Your task to perform on an android device: install app "Flipkart Online Shopping App" Image 0: 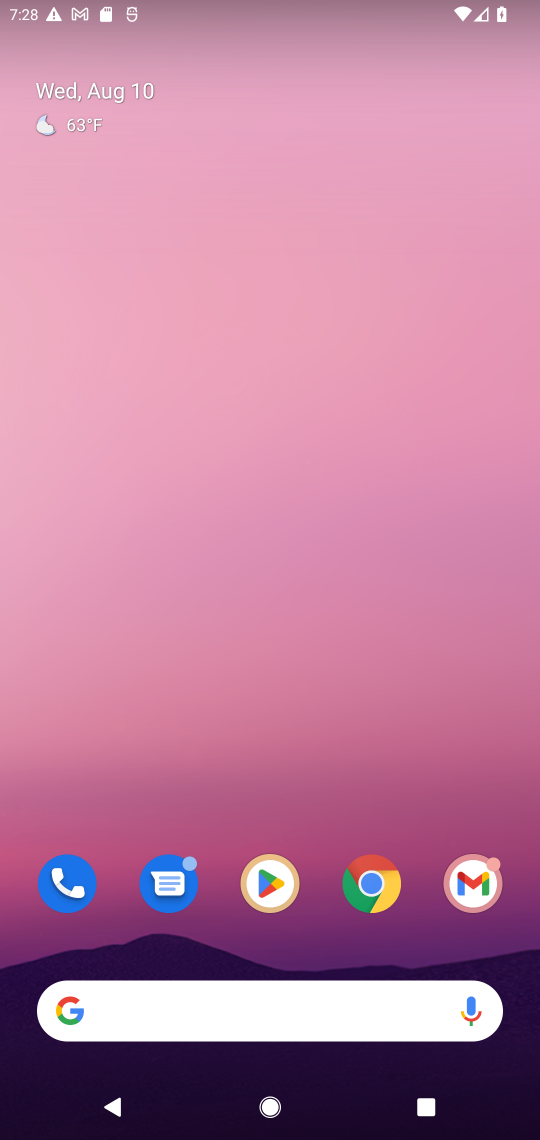
Step 0: click (240, 891)
Your task to perform on an android device: install app "Flipkart Online Shopping App" Image 1: 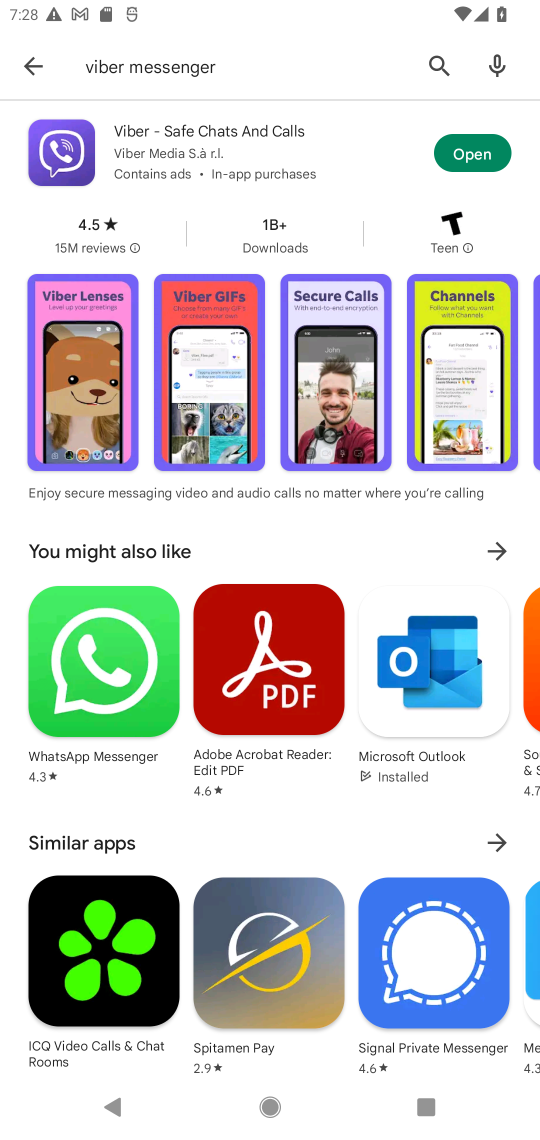
Step 1: click (438, 68)
Your task to perform on an android device: install app "Flipkart Online Shopping App" Image 2: 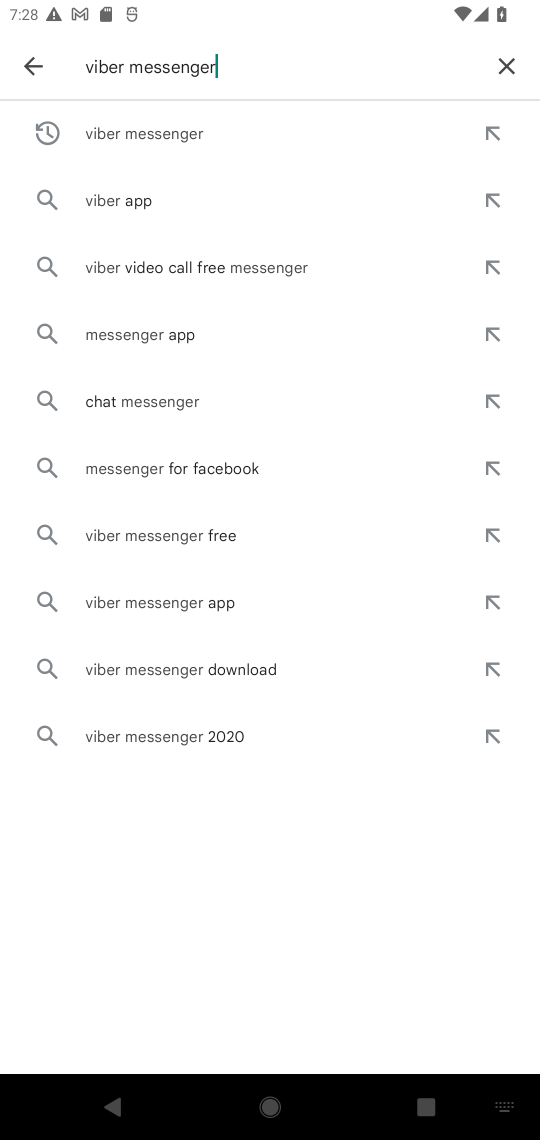
Step 2: click (323, 67)
Your task to perform on an android device: install app "Flipkart Online Shopping App" Image 3: 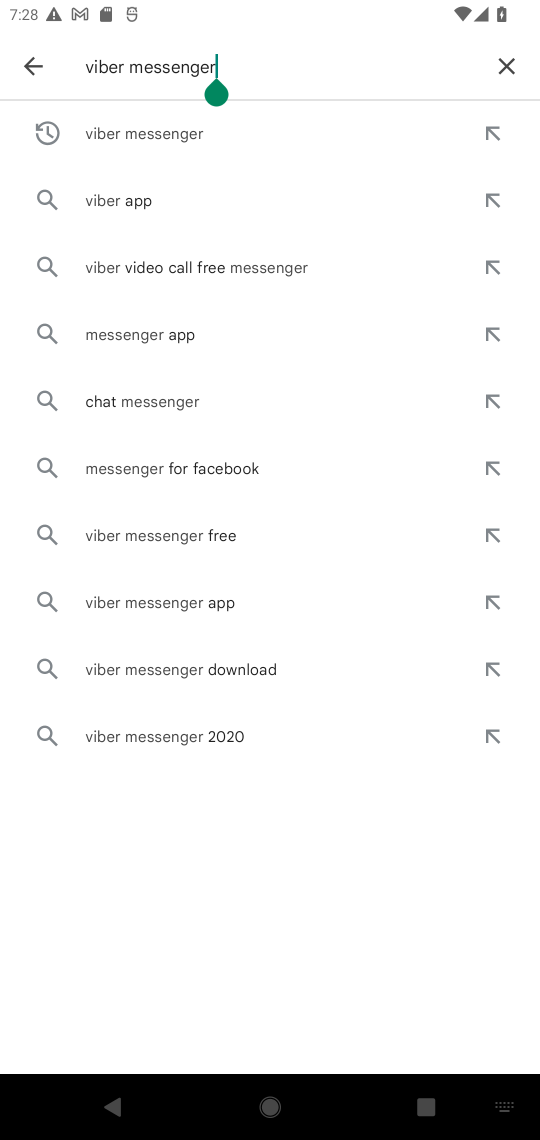
Step 3: click (490, 63)
Your task to perform on an android device: install app "Flipkart Online Shopping App" Image 4: 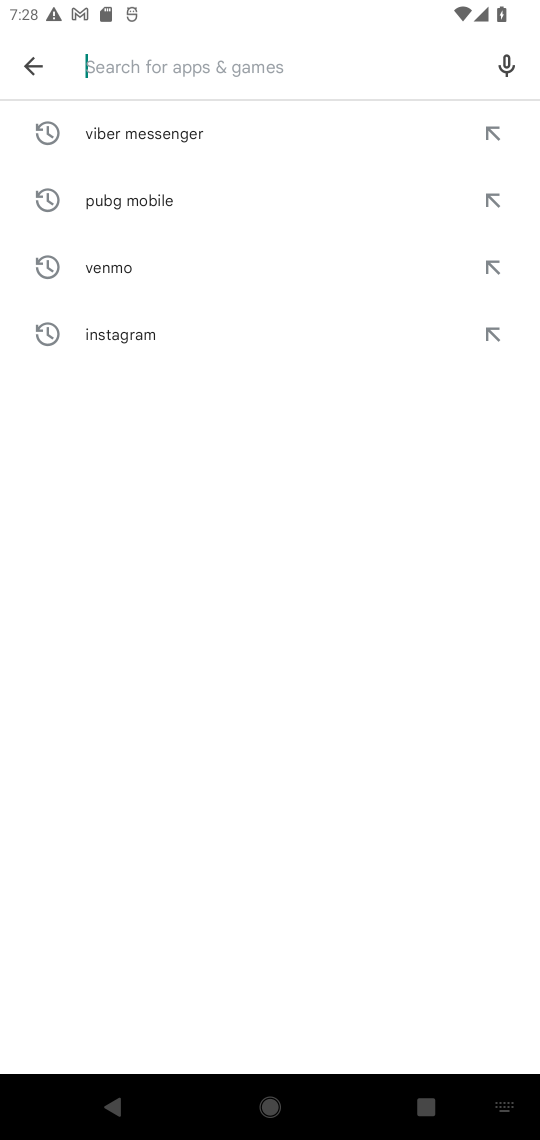
Step 4: type "Flipkart Online Shopping App"
Your task to perform on an android device: install app "Flipkart Online Shopping App" Image 5: 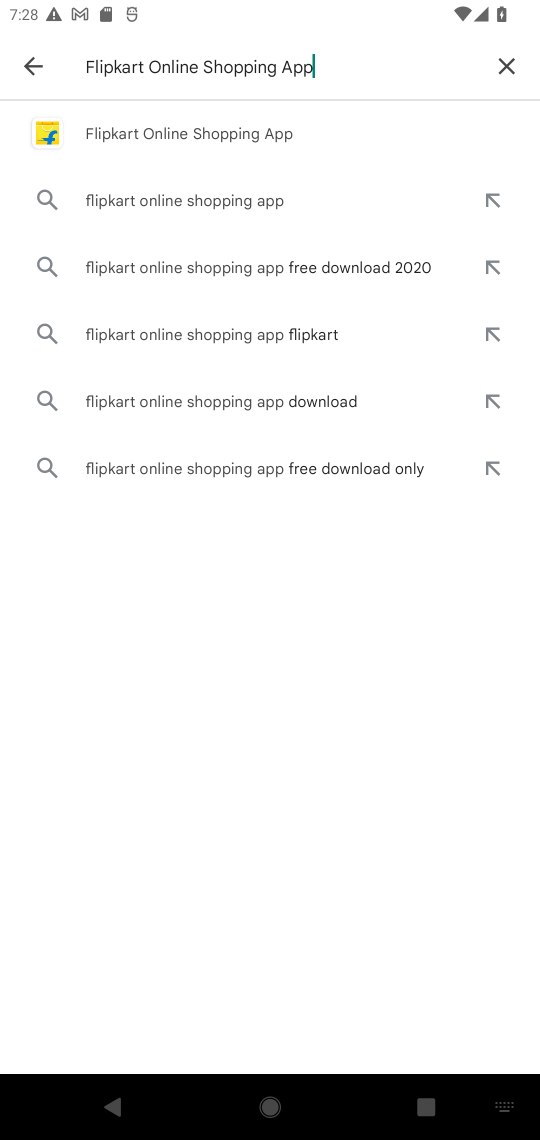
Step 5: click (262, 146)
Your task to perform on an android device: install app "Flipkart Online Shopping App" Image 6: 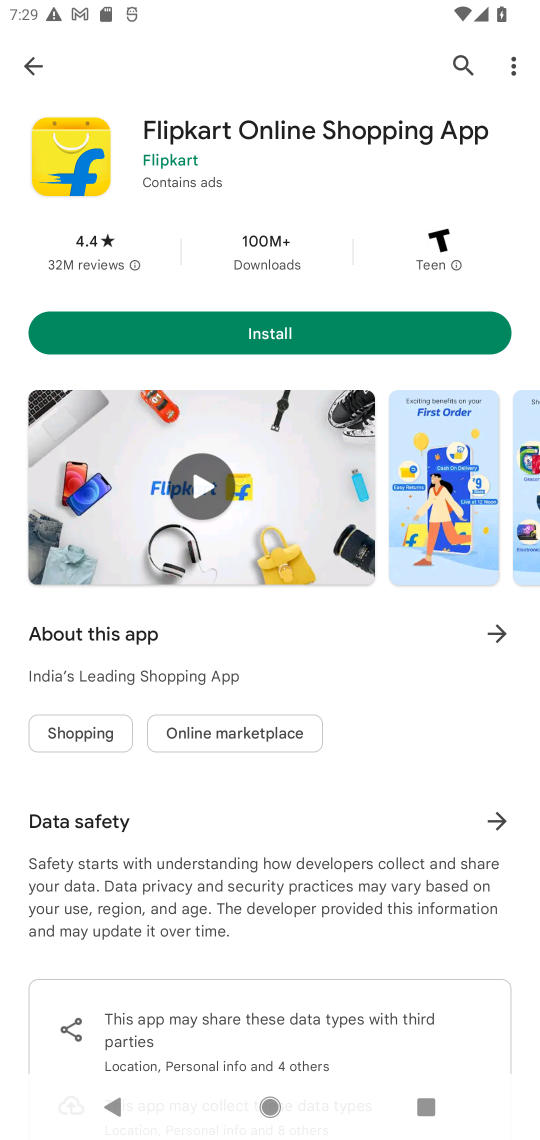
Step 6: click (231, 328)
Your task to perform on an android device: install app "Flipkart Online Shopping App" Image 7: 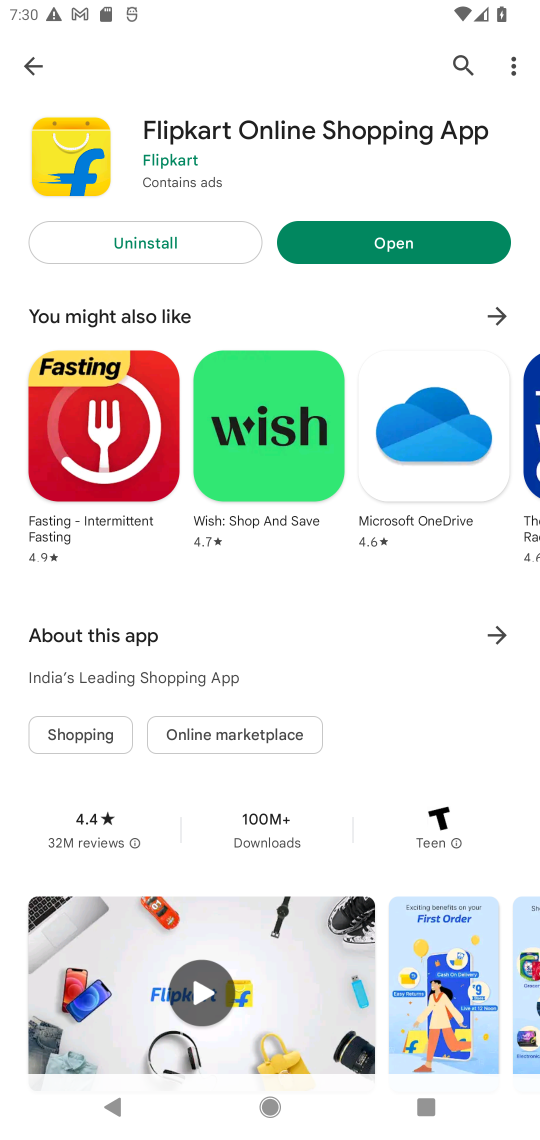
Step 7: task complete